Your task to perform on an android device: Open calendar and show me the first week of next month Image 0: 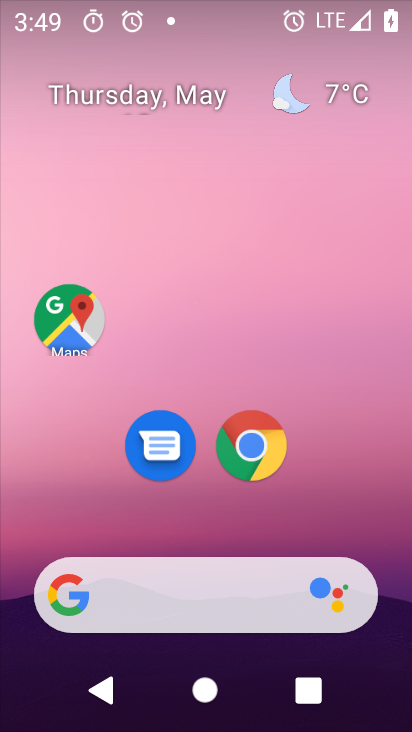
Step 0: drag from (390, 504) to (372, 3)
Your task to perform on an android device: Open calendar and show me the first week of next month Image 1: 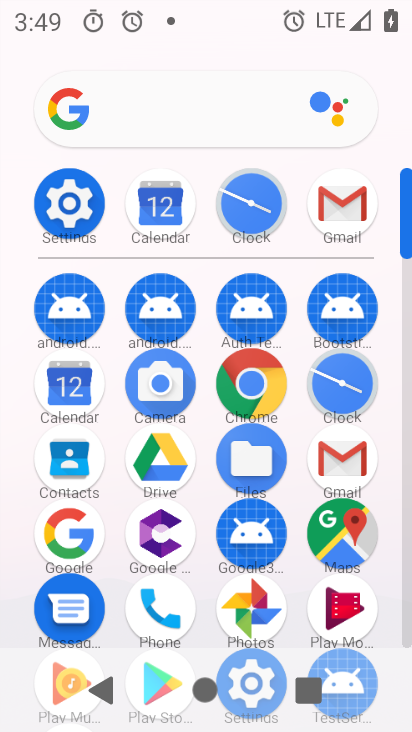
Step 1: click (159, 210)
Your task to perform on an android device: Open calendar and show me the first week of next month Image 2: 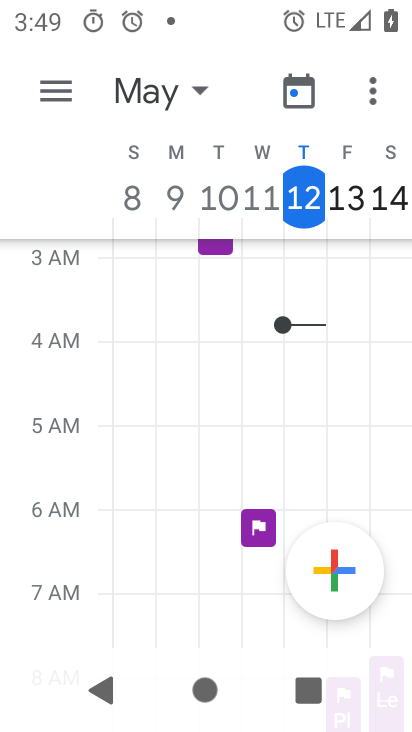
Step 2: click (203, 96)
Your task to perform on an android device: Open calendar and show me the first week of next month Image 3: 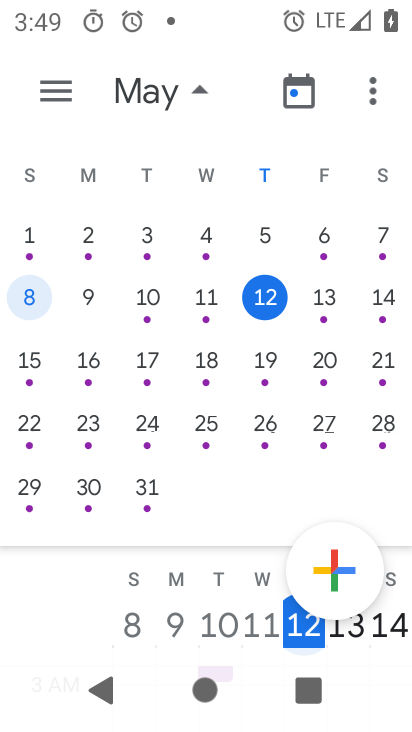
Step 3: drag from (393, 363) to (0, 328)
Your task to perform on an android device: Open calendar and show me the first week of next month Image 4: 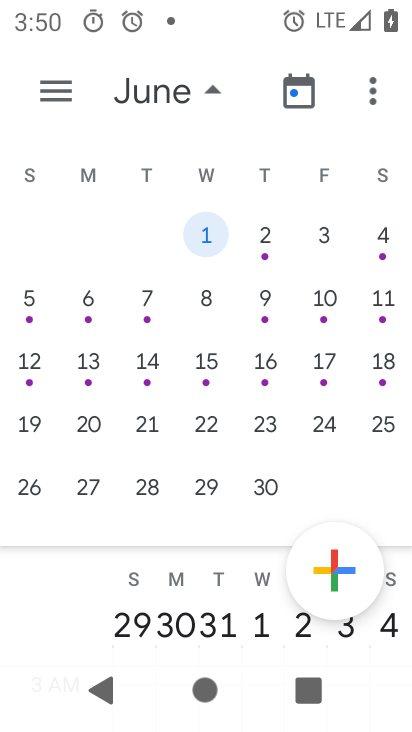
Step 4: click (51, 94)
Your task to perform on an android device: Open calendar and show me the first week of next month Image 5: 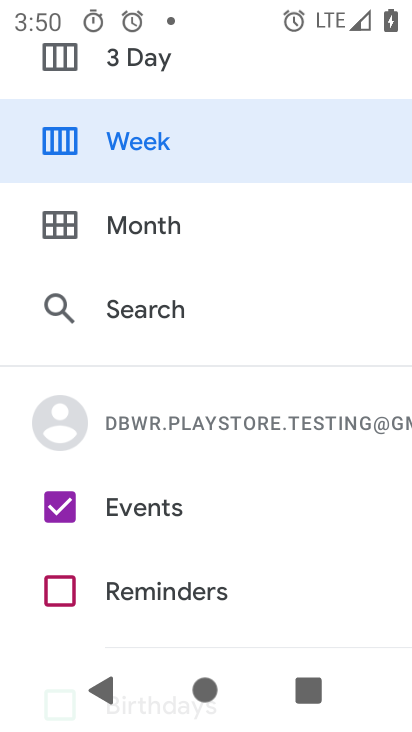
Step 5: click (90, 148)
Your task to perform on an android device: Open calendar and show me the first week of next month Image 6: 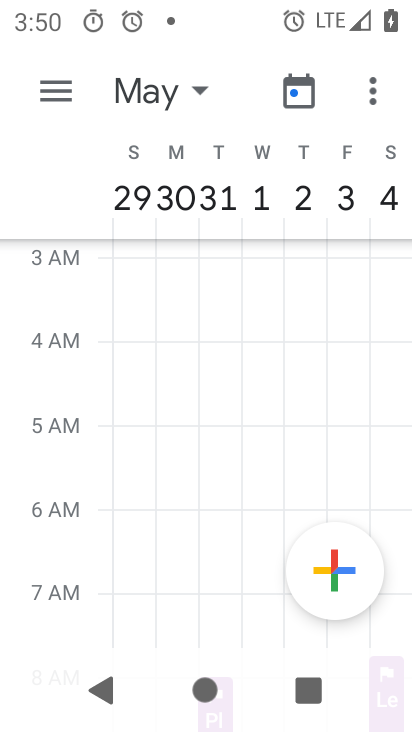
Step 6: task complete